Your task to perform on an android device: create a new album in the google photos Image 0: 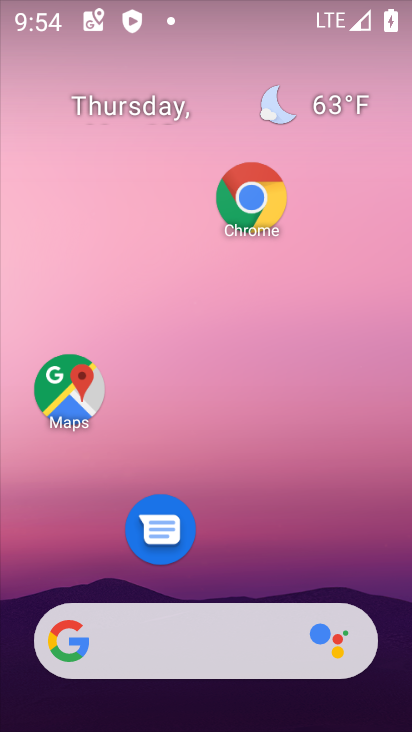
Step 0: drag from (272, 643) to (347, 124)
Your task to perform on an android device: create a new album in the google photos Image 1: 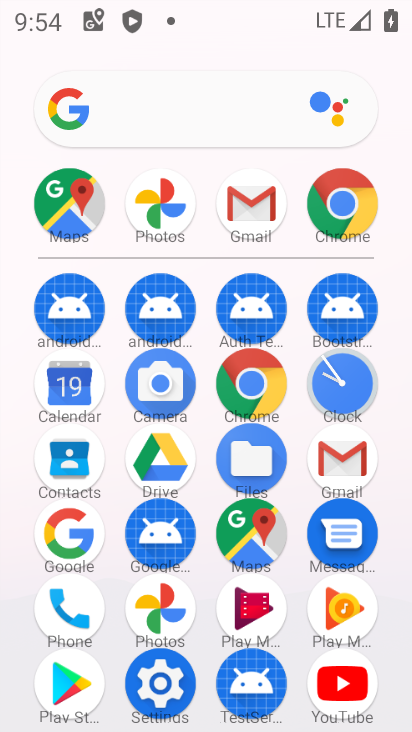
Step 1: click (170, 619)
Your task to perform on an android device: create a new album in the google photos Image 2: 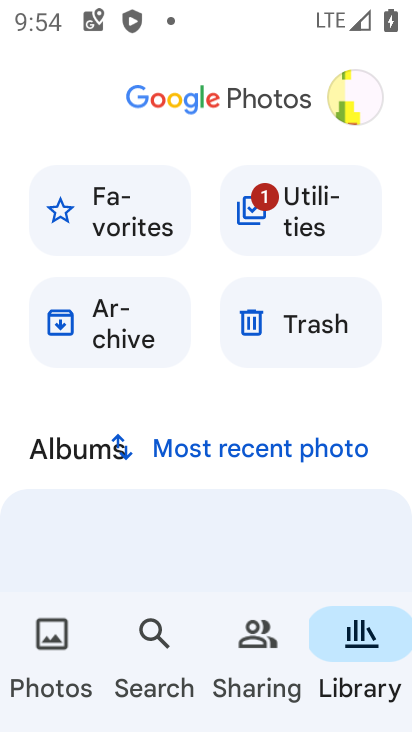
Step 2: drag from (281, 474) to (358, 107)
Your task to perform on an android device: create a new album in the google photos Image 3: 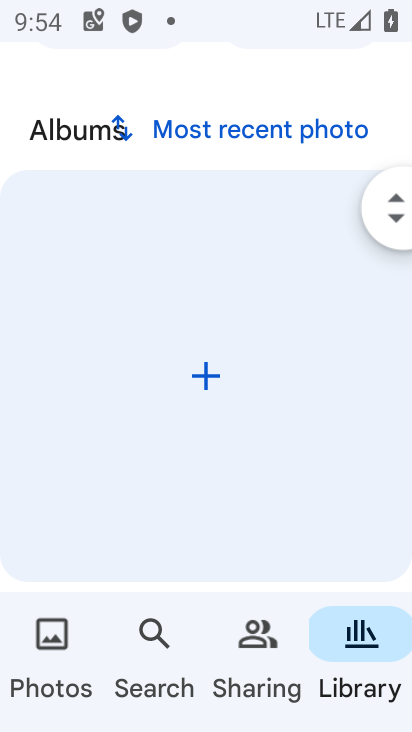
Step 3: click (209, 371)
Your task to perform on an android device: create a new album in the google photos Image 4: 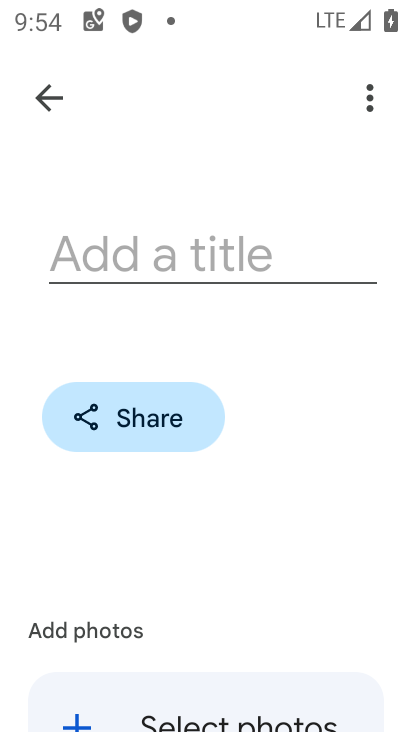
Step 4: click (192, 249)
Your task to perform on an android device: create a new album in the google photos Image 5: 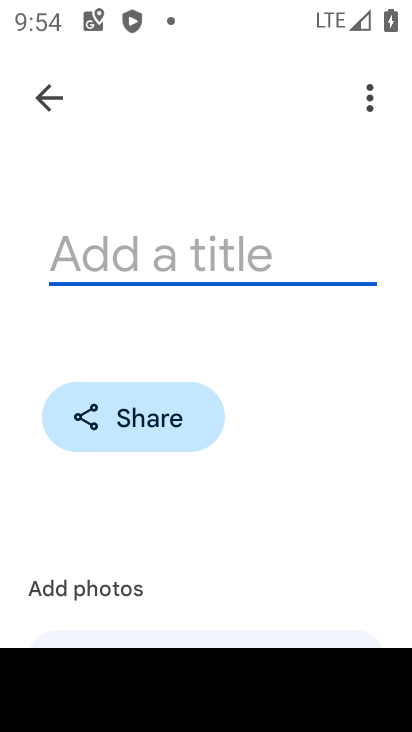
Step 5: type "sdfscscd"
Your task to perform on an android device: create a new album in the google photos Image 6: 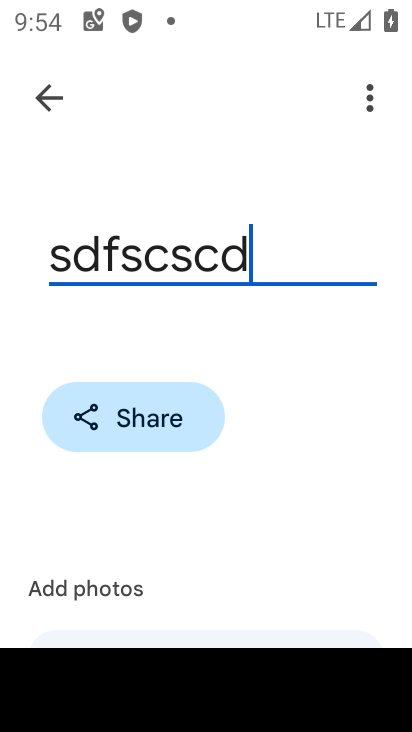
Step 6: type ""
Your task to perform on an android device: create a new album in the google photos Image 7: 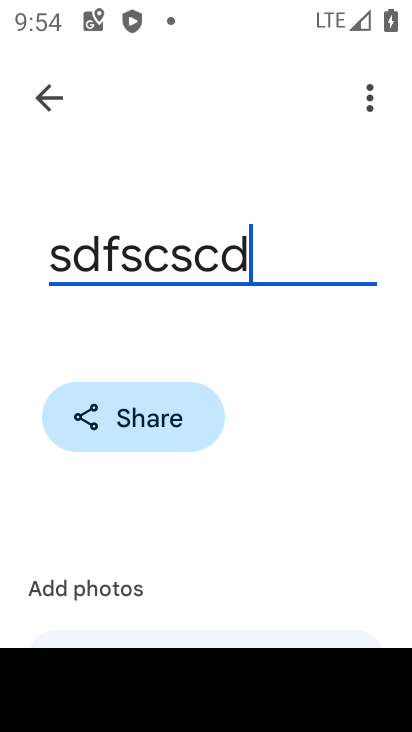
Step 7: drag from (289, 532) to (291, 126)
Your task to perform on an android device: create a new album in the google photos Image 8: 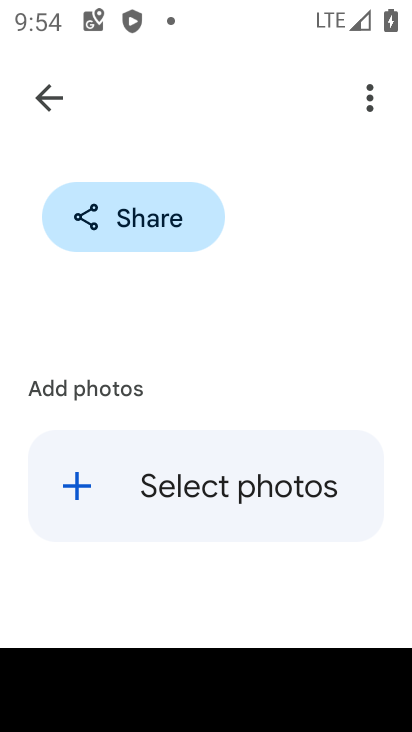
Step 8: click (77, 479)
Your task to perform on an android device: create a new album in the google photos Image 9: 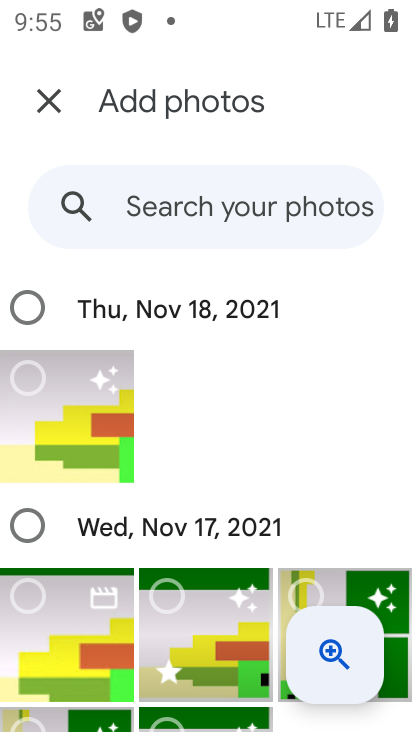
Step 9: click (45, 382)
Your task to perform on an android device: create a new album in the google photos Image 10: 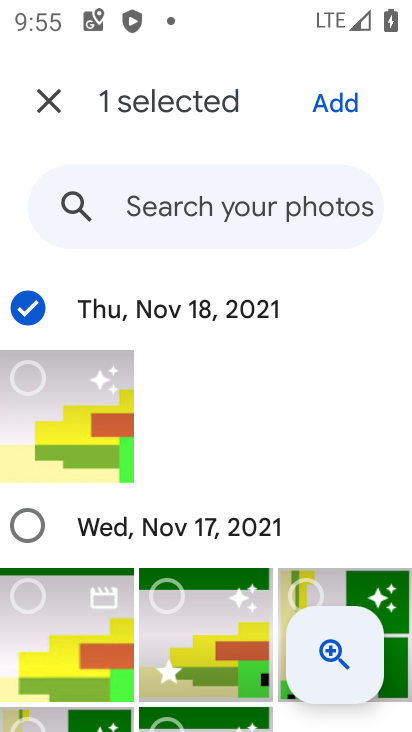
Step 10: click (20, 594)
Your task to perform on an android device: create a new album in the google photos Image 11: 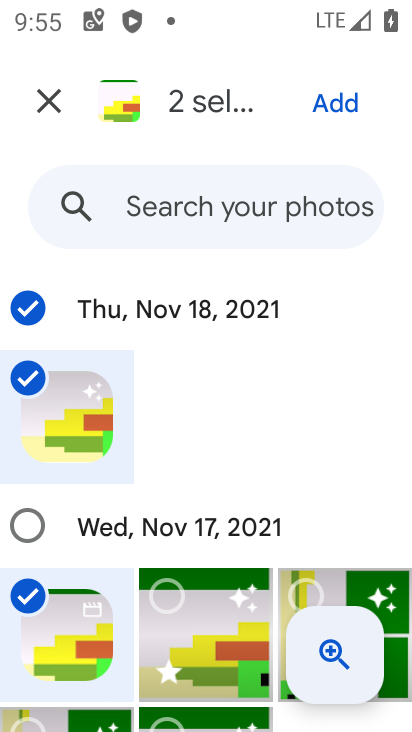
Step 11: click (193, 580)
Your task to perform on an android device: create a new album in the google photos Image 12: 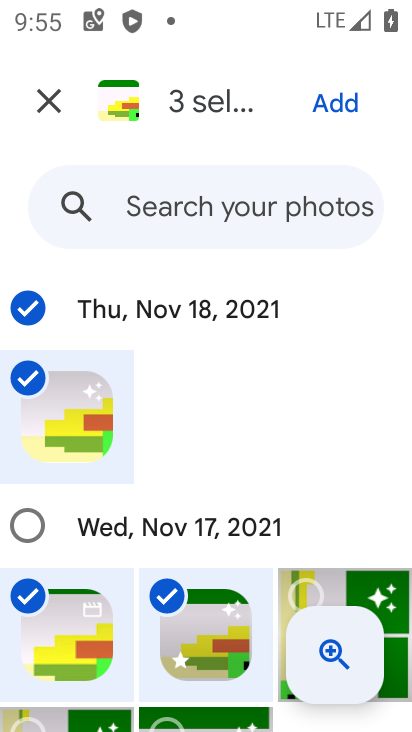
Step 12: click (341, 96)
Your task to perform on an android device: create a new album in the google photos Image 13: 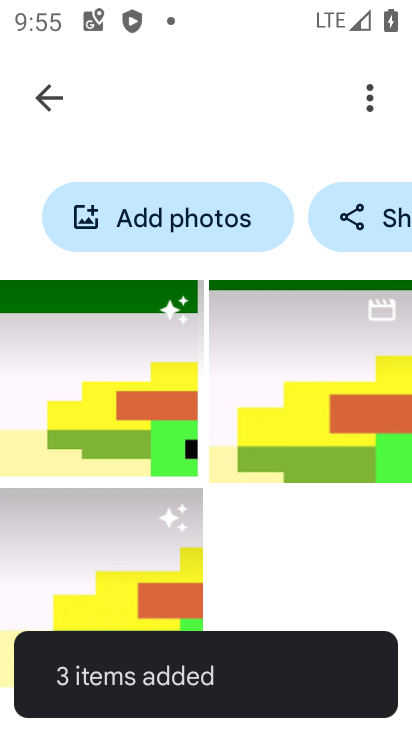
Step 13: task complete